Your task to perform on an android device: Open settings Image 0: 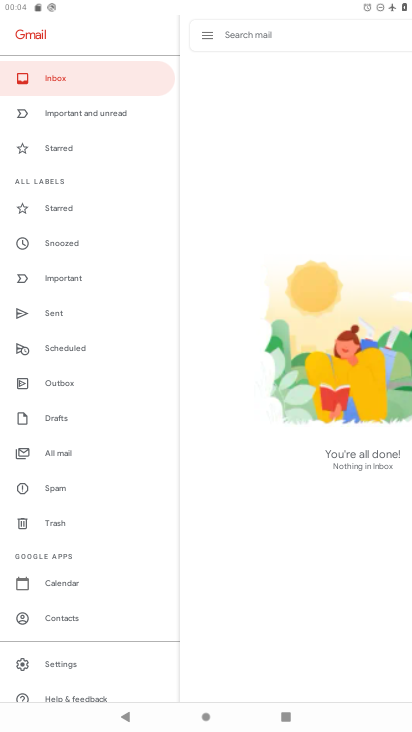
Step 0: click (40, 662)
Your task to perform on an android device: Open settings Image 1: 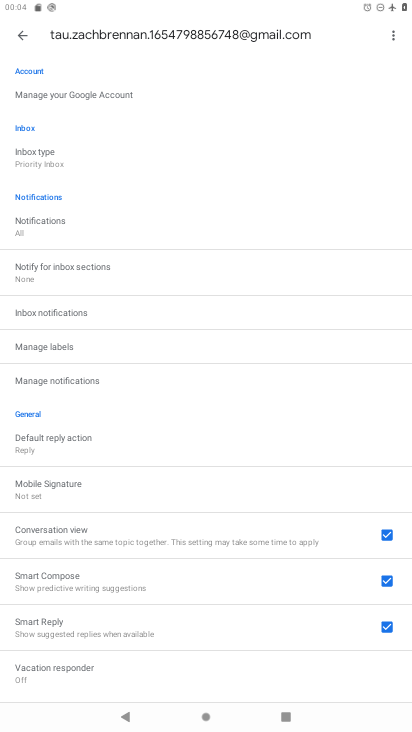
Step 1: drag from (203, 488) to (247, 167)
Your task to perform on an android device: Open settings Image 2: 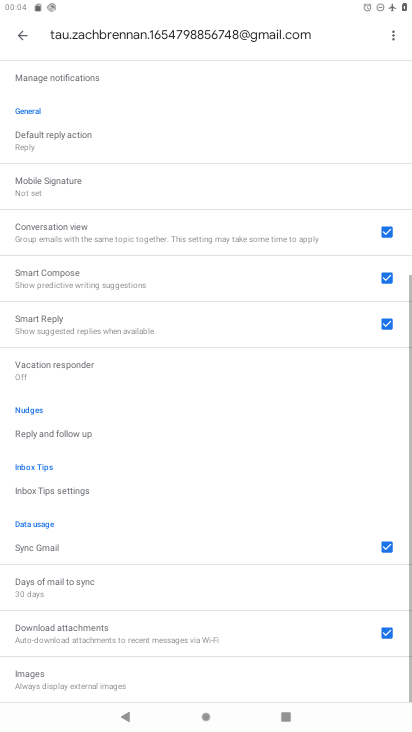
Step 2: drag from (198, 162) to (153, 534)
Your task to perform on an android device: Open settings Image 3: 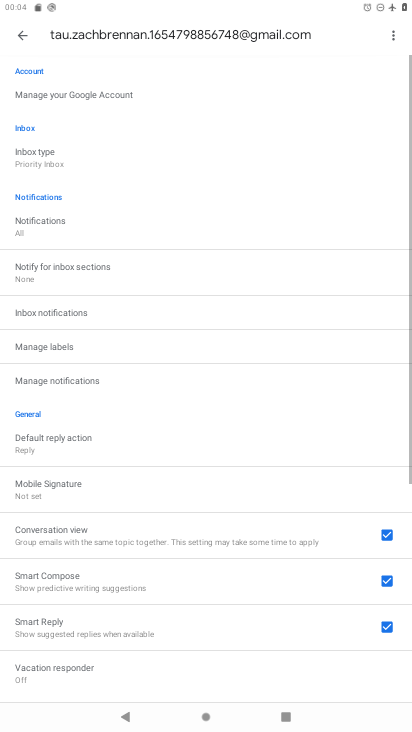
Step 3: drag from (151, 536) to (197, 116)
Your task to perform on an android device: Open settings Image 4: 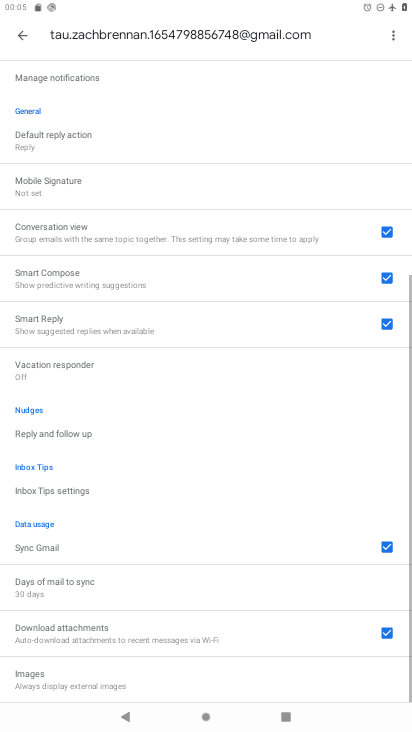
Step 4: drag from (114, 584) to (174, 280)
Your task to perform on an android device: Open settings Image 5: 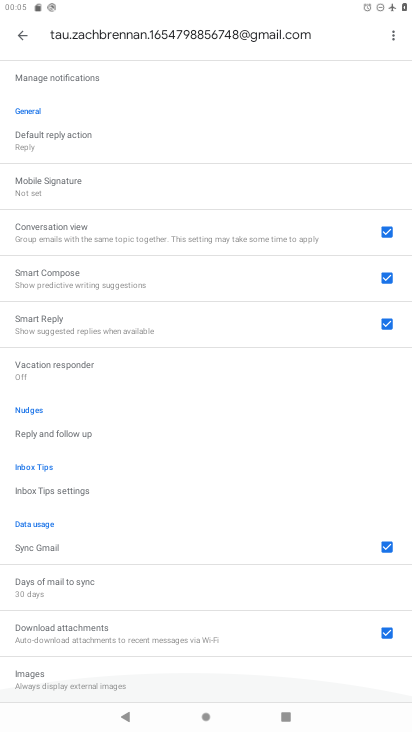
Step 5: drag from (194, 148) to (239, 726)
Your task to perform on an android device: Open settings Image 6: 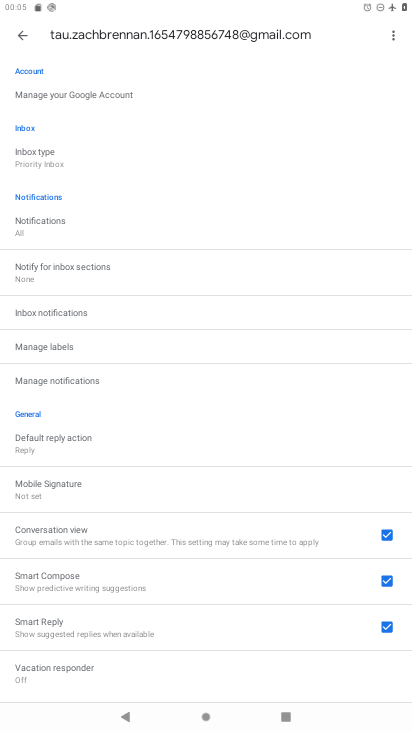
Step 6: drag from (184, 657) to (181, 426)
Your task to perform on an android device: Open settings Image 7: 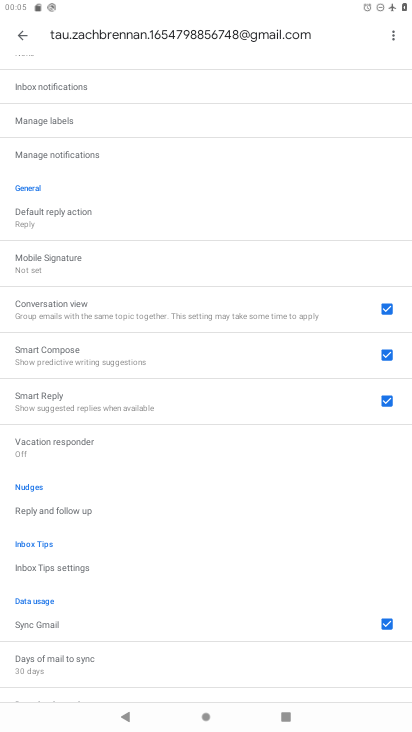
Step 7: drag from (160, 572) to (188, 309)
Your task to perform on an android device: Open settings Image 8: 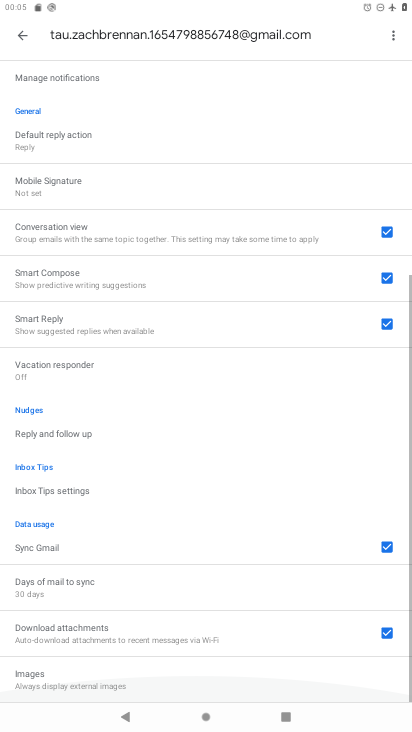
Step 8: drag from (196, 181) to (233, 533)
Your task to perform on an android device: Open settings Image 9: 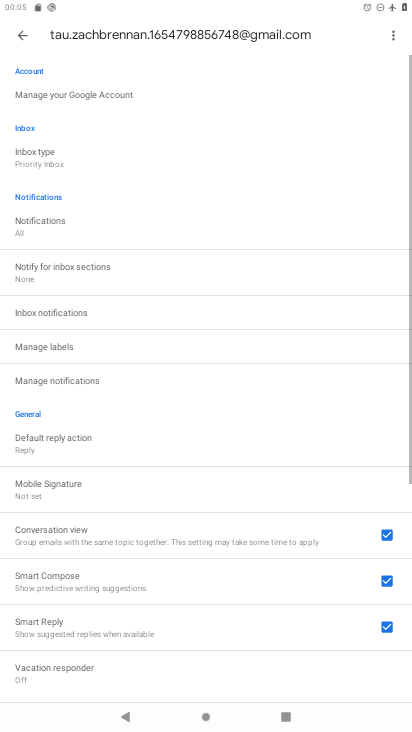
Step 9: drag from (219, 229) to (278, 631)
Your task to perform on an android device: Open settings Image 10: 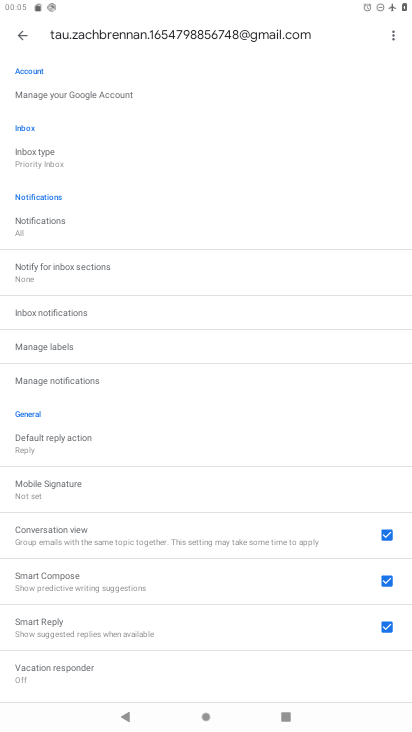
Step 10: press home button
Your task to perform on an android device: Open settings Image 11: 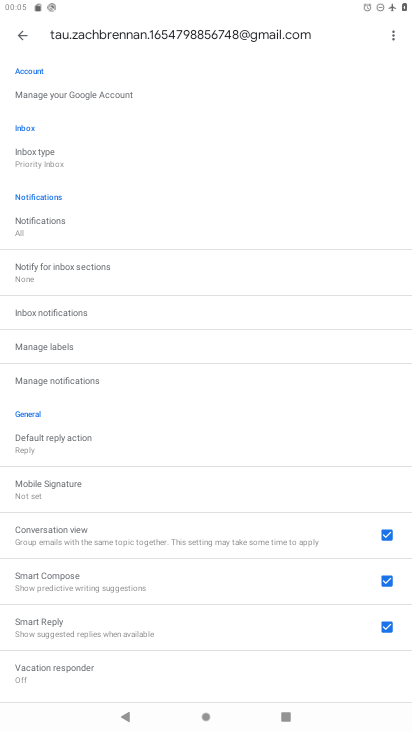
Step 11: drag from (306, 521) to (373, 21)
Your task to perform on an android device: Open settings Image 12: 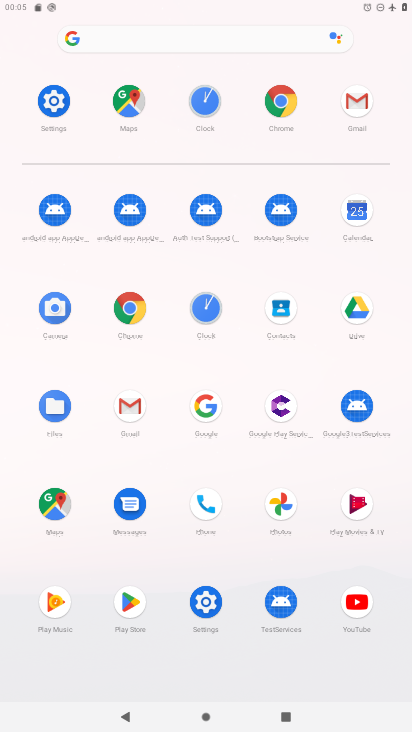
Step 12: click (44, 91)
Your task to perform on an android device: Open settings Image 13: 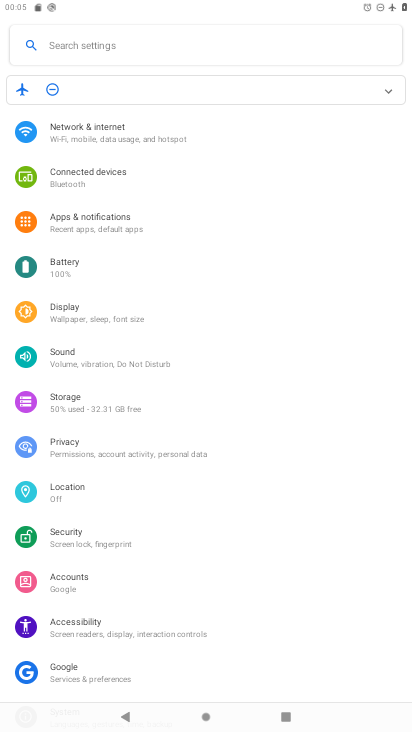
Step 13: task complete